Your task to perform on an android device: delete the emails in spam in the gmail app Image 0: 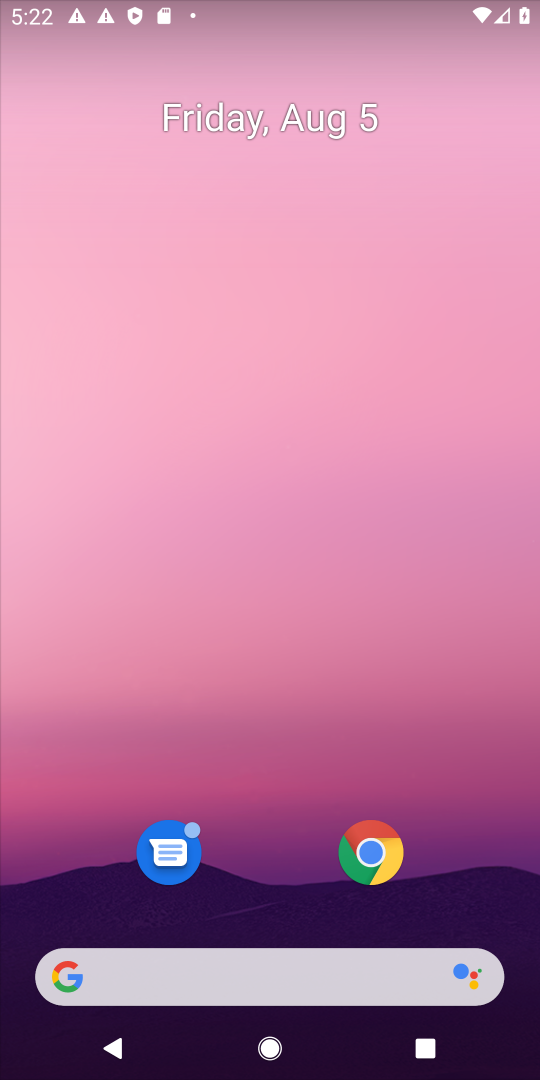
Step 0: drag from (294, 587) to (313, 61)
Your task to perform on an android device: delete the emails in spam in the gmail app Image 1: 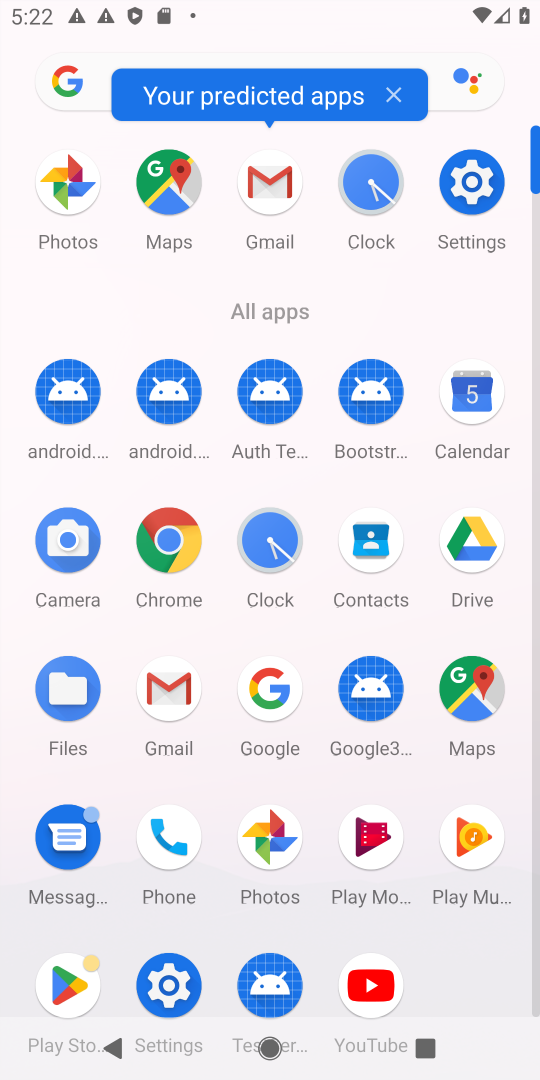
Step 1: click (166, 710)
Your task to perform on an android device: delete the emails in spam in the gmail app Image 2: 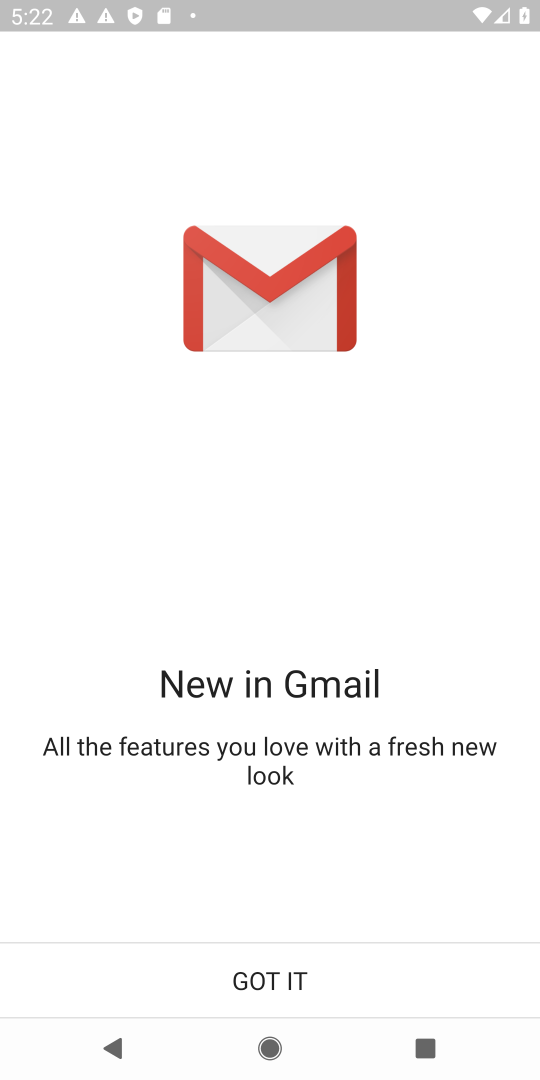
Step 2: click (279, 982)
Your task to perform on an android device: delete the emails in spam in the gmail app Image 3: 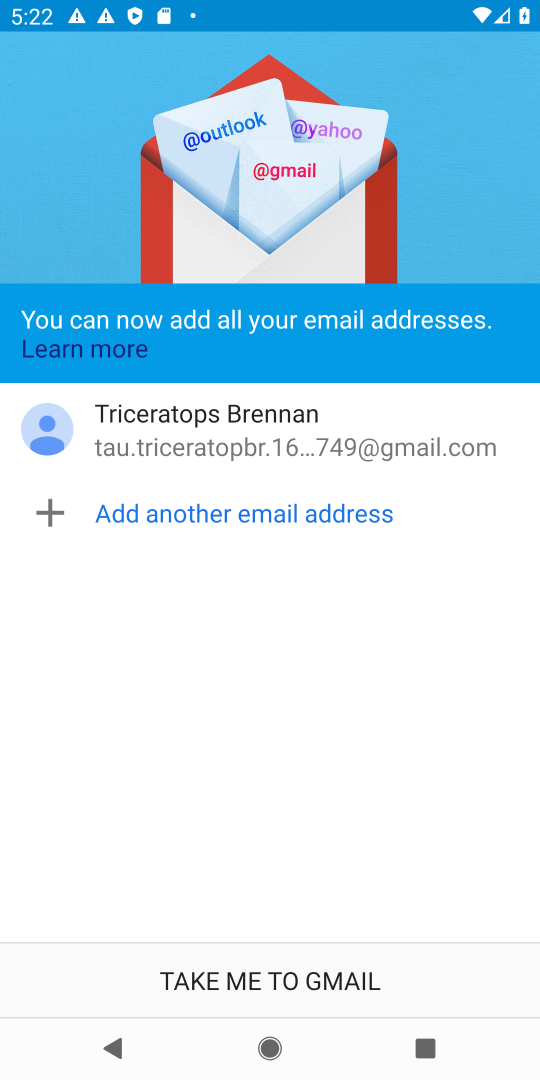
Step 3: click (292, 984)
Your task to perform on an android device: delete the emails in spam in the gmail app Image 4: 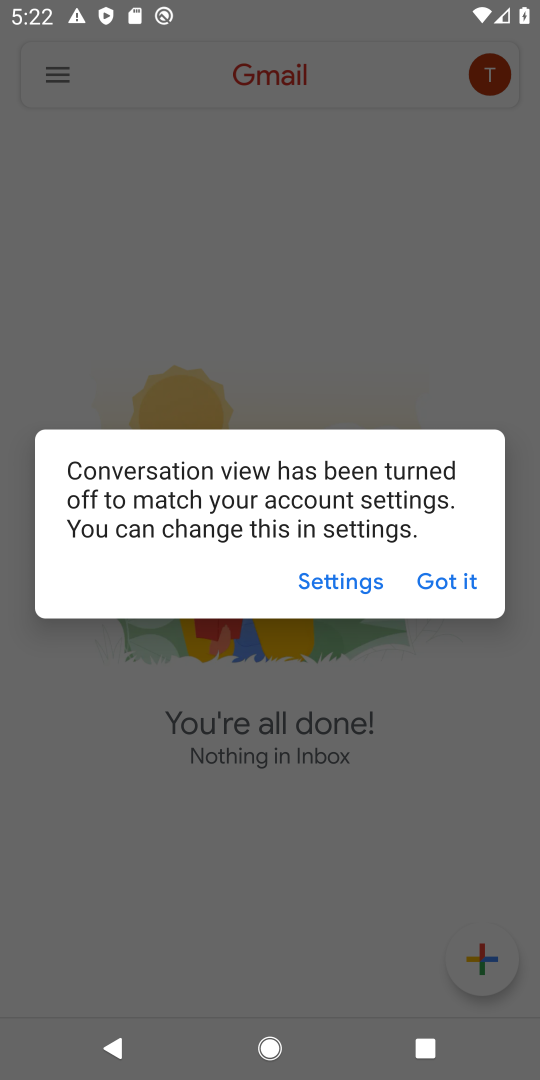
Step 4: click (439, 581)
Your task to perform on an android device: delete the emails in spam in the gmail app Image 5: 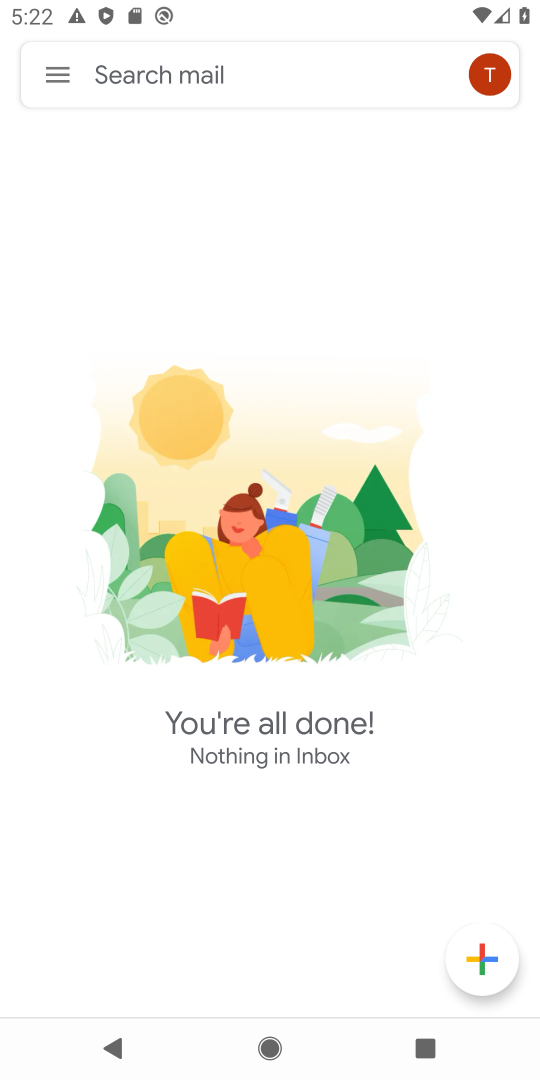
Step 5: click (59, 64)
Your task to perform on an android device: delete the emails in spam in the gmail app Image 6: 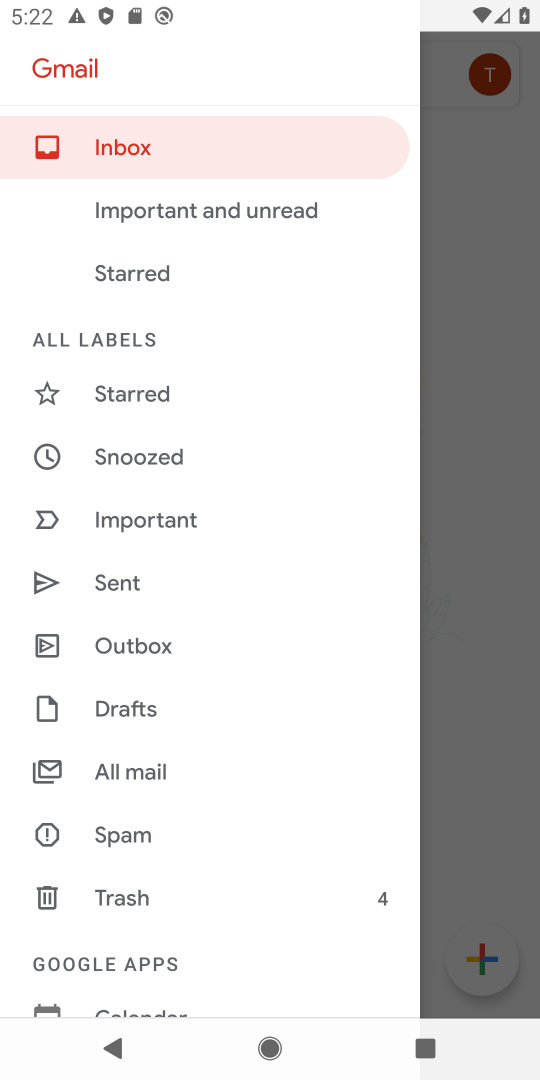
Step 6: click (168, 839)
Your task to perform on an android device: delete the emails in spam in the gmail app Image 7: 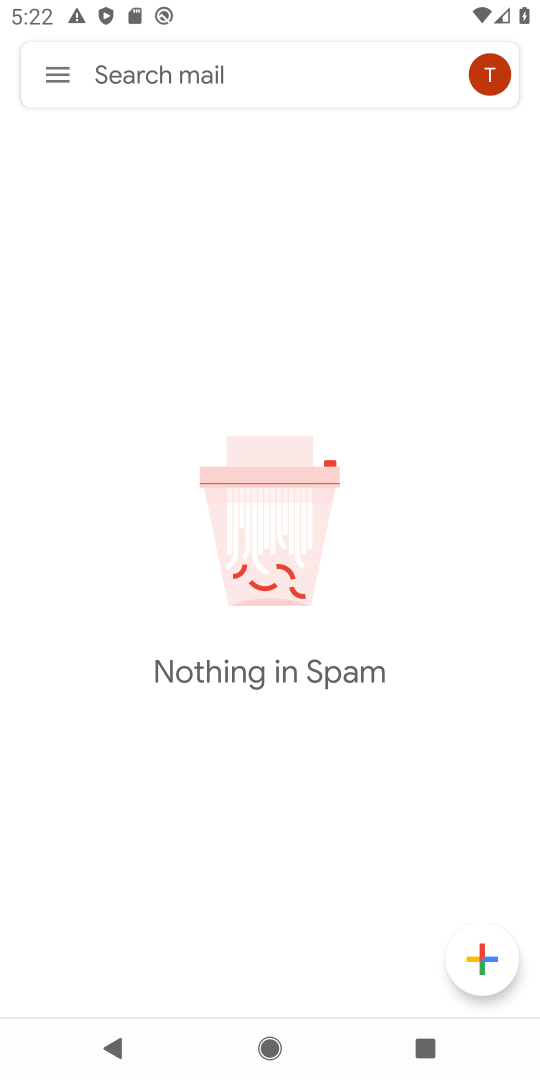
Step 7: task complete